Your task to perform on an android device: Search for 35 best books of all time Image 0: 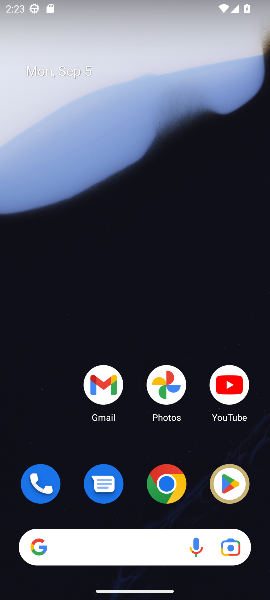
Step 0: click (165, 484)
Your task to perform on an android device: Search for 35 best books of all time Image 1: 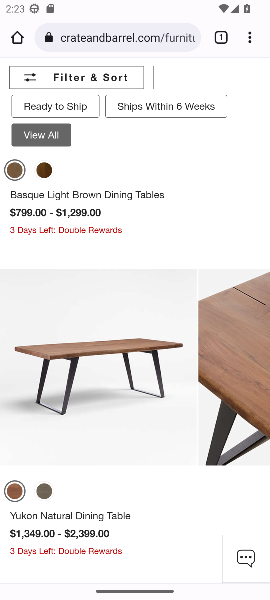
Step 1: click (123, 31)
Your task to perform on an android device: Search for 35 best books of all time Image 2: 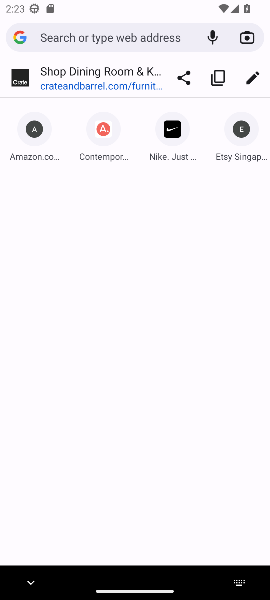
Step 2: type " 35 best books of all time"
Your task to perform on an android device: Search for 35 best books of all time Image 3: 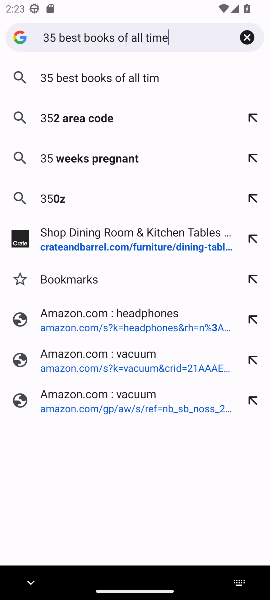
Step 3: press enter
Your task to perform on an android device: Search for 35 best books of all time Image 4: 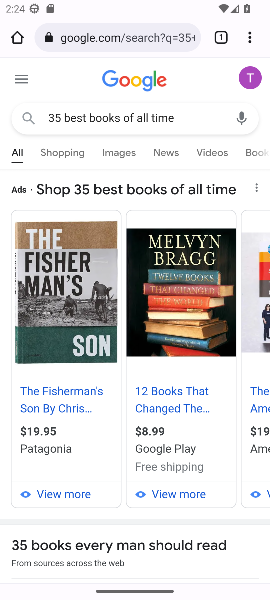
Step 4: drag from (97, 465) to (153, 180)
Your task to perform on an android device: Search for 35 best books of all time Image 5: 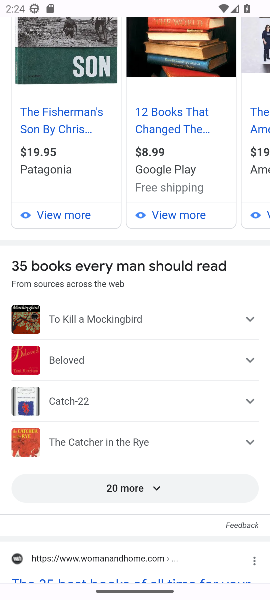
Step 5: drag from (150, 541) to (176, 282)
Your task to perform on an android device: Search for 35 best books of all time Image 6: 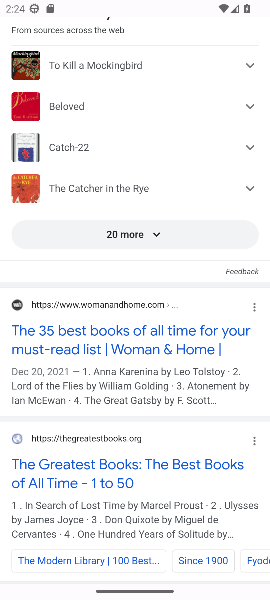
Step 6: click (140, 337)
Your task to perform on an android device: Search for 35 best books of all time Image 7: 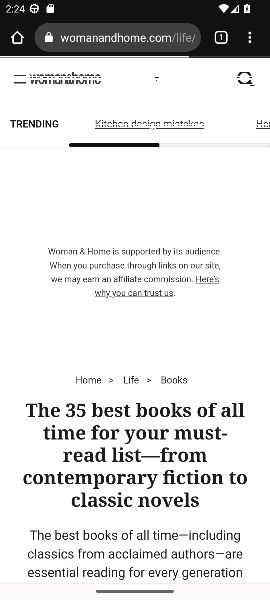
Step 7: task complete